Your task to perform on an android device: Open Amazon Image 0: 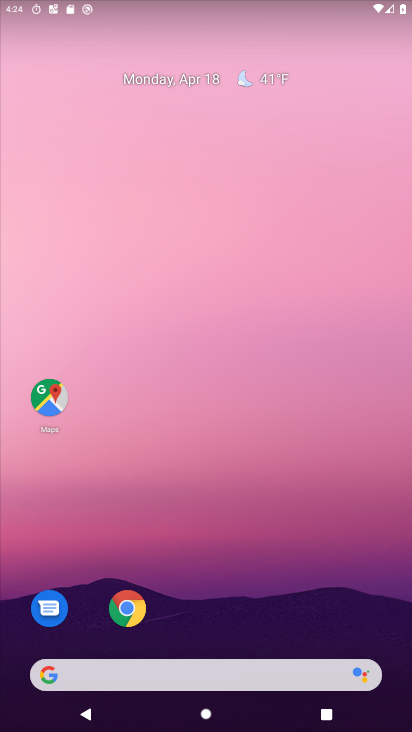
Step 0: click (134, 613)
Your task to perform on an android device: Open Amazon Image 1: 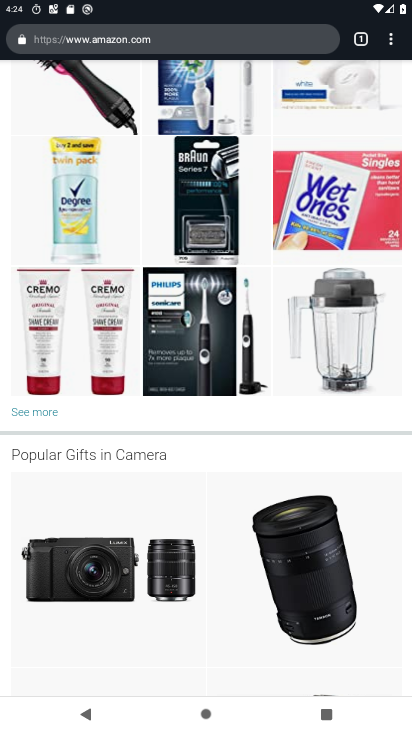
Step 1: task complete